Your task to perform on an android device: Go to sound settings Image 0: 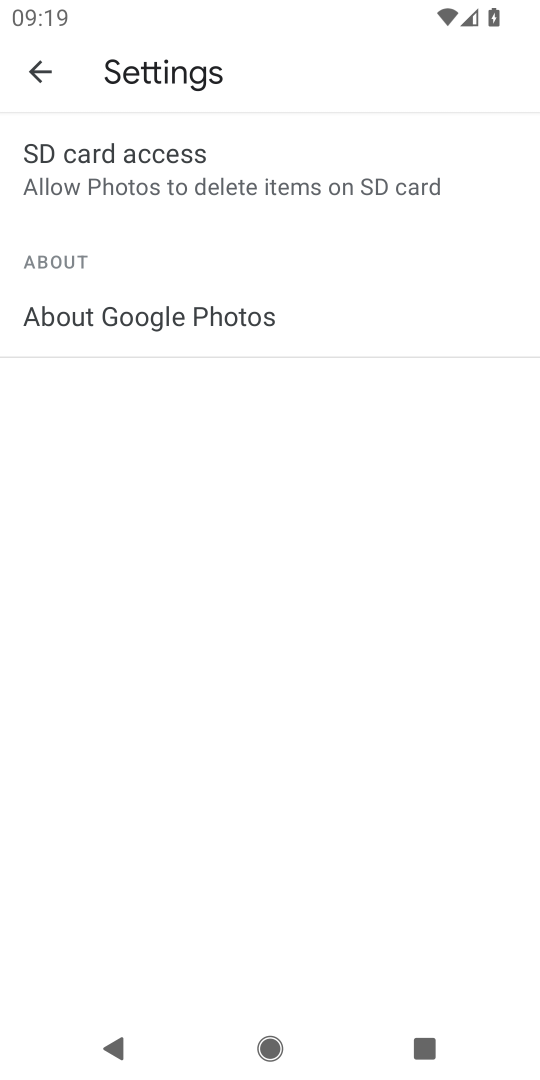
Step 0: press home button
Your task to perform on an android device: Go to sound settings Image 1: 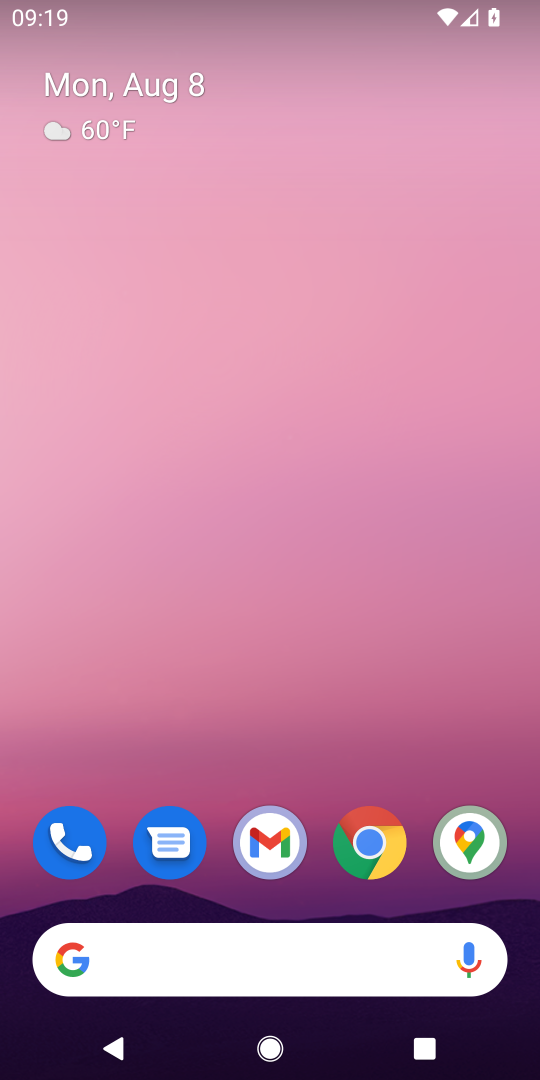
Step 1: drag from (318, 751) to (316, 297)
Your task to perform on an android device: Go to sound settings Image 2: 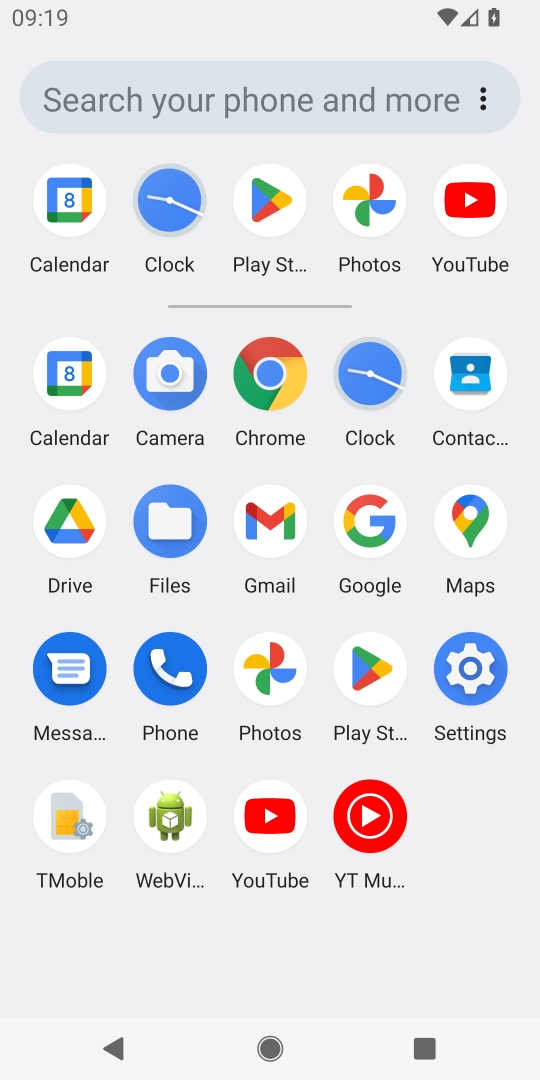
Step 2: click (469, 657)
Your task to perform on an android device: Go to sound settings Image 3: 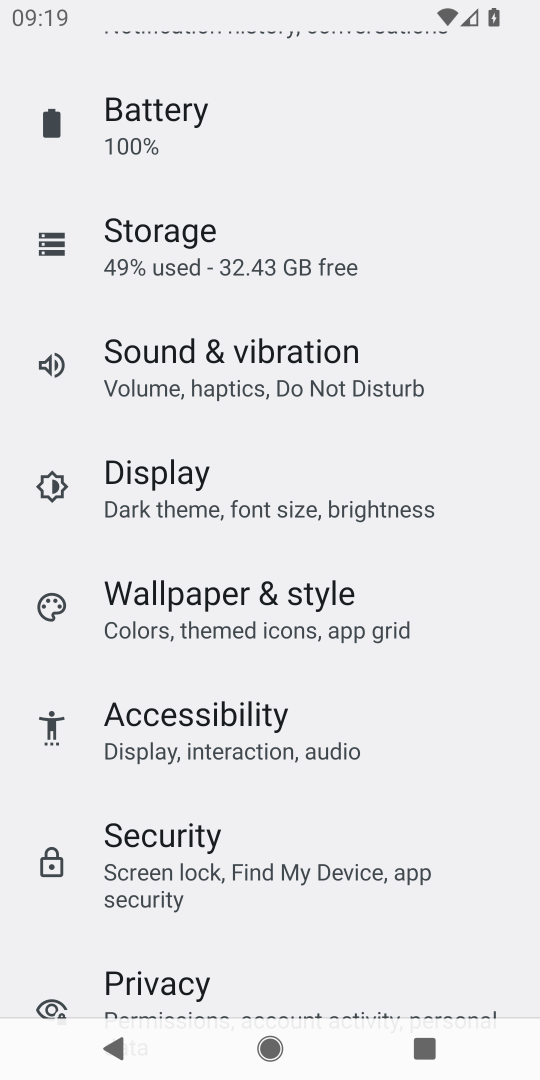
Step 3: click (253, 365)
Your task to perform on an android device: Go to sound settings Image 4: 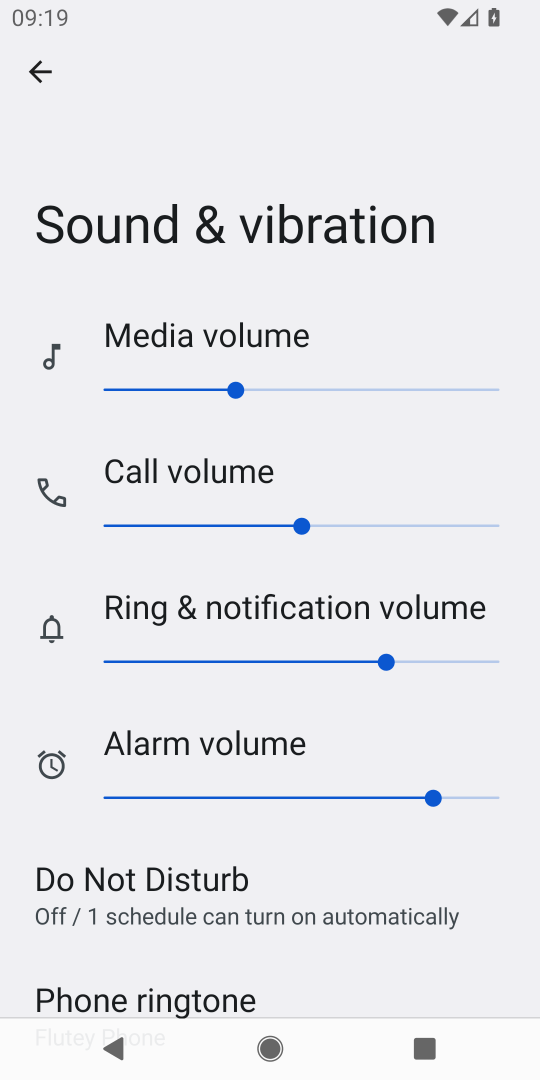
Step 4: task complete